Your task to perform on an android device: Open privacy settings Image 0: 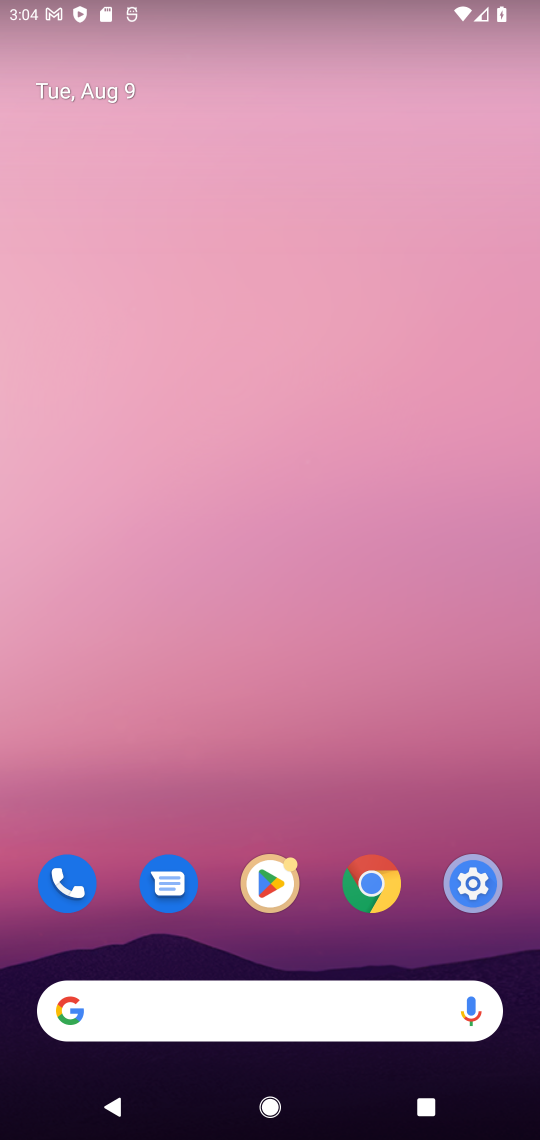
Step 0: drag from (361, 1027) to (333, 496)
Your task to perform on an android device: Open privacy settings Image 1: 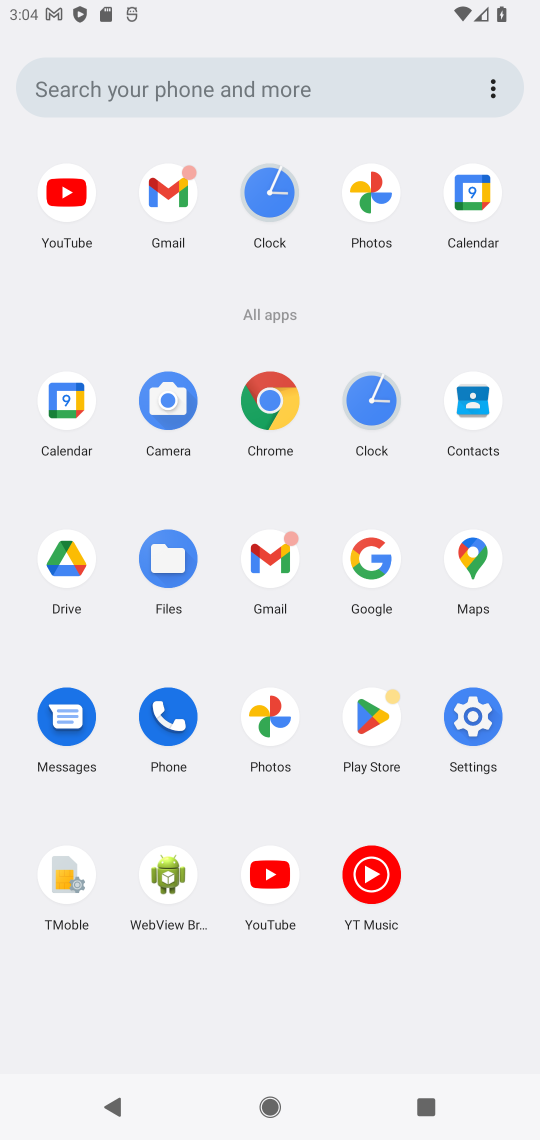
Step 1: click (457, 716)
Your task to perform on an android device: Open privacy settings Image 2: 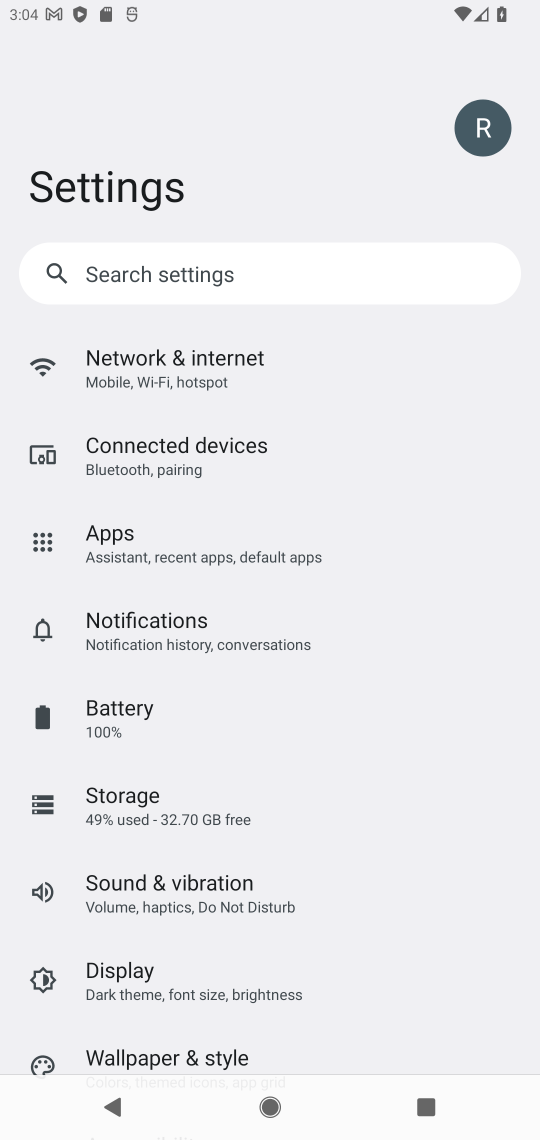
Step 2: click (184, 270)
Your task to perform on an android device: Open privacy settings Image 3: 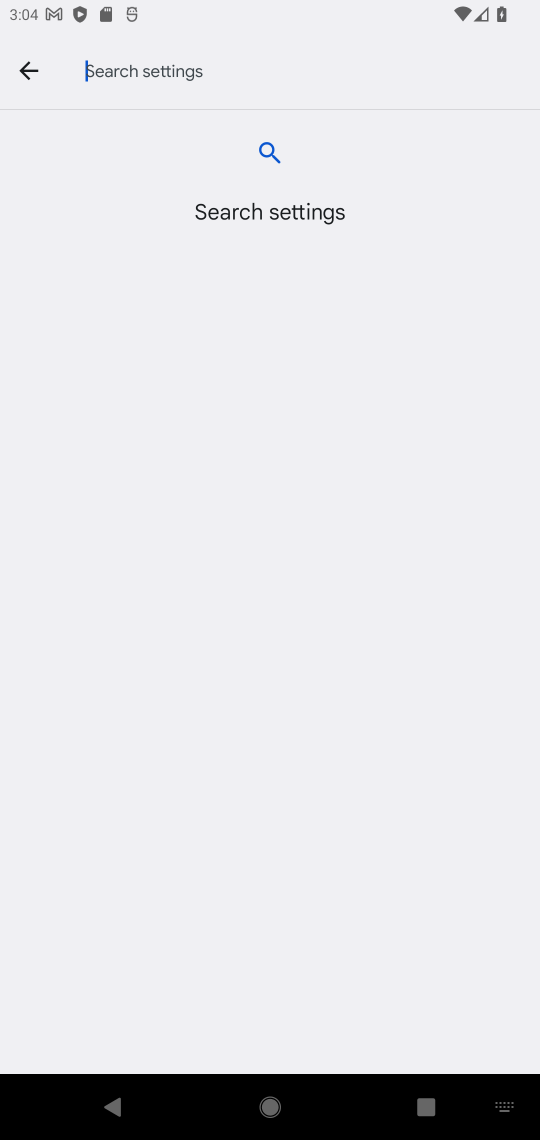
Step 3: click (496, 1112)
Your task to perform on an android device: Open privacy settings Image 4: 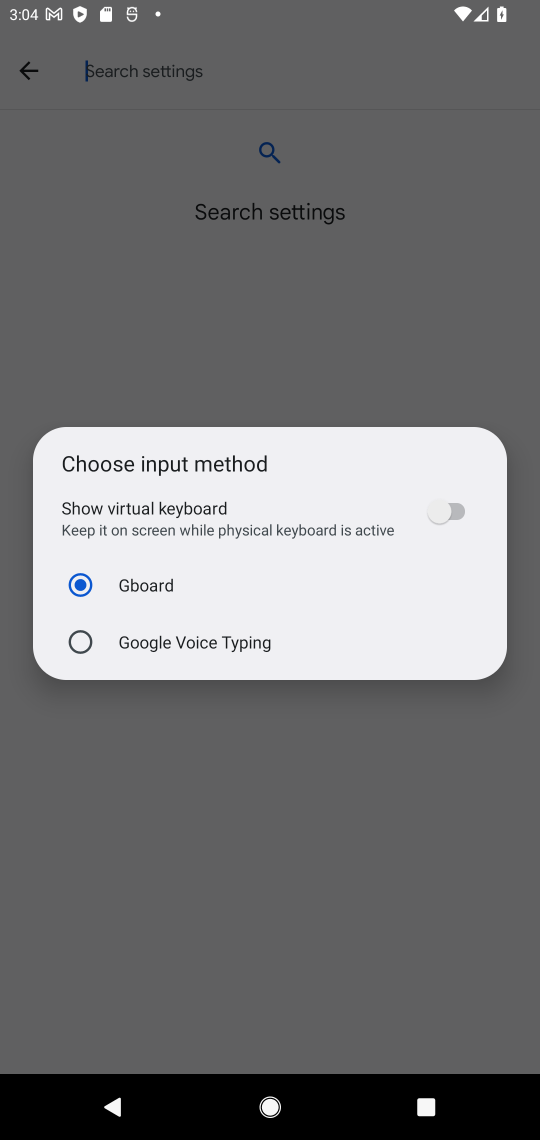
Step 4: click (440, 510)
Your task to perform on an android device: Open privacy settings Image 5: 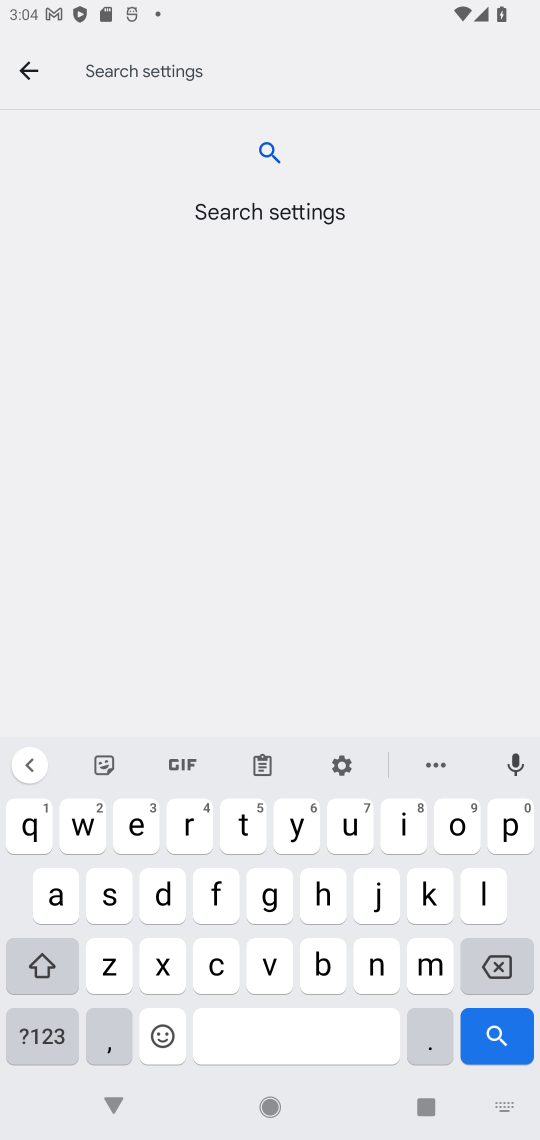
Step 5: click (509, 821)
Your task to perform on an android device: Open privacy settings Image 6: 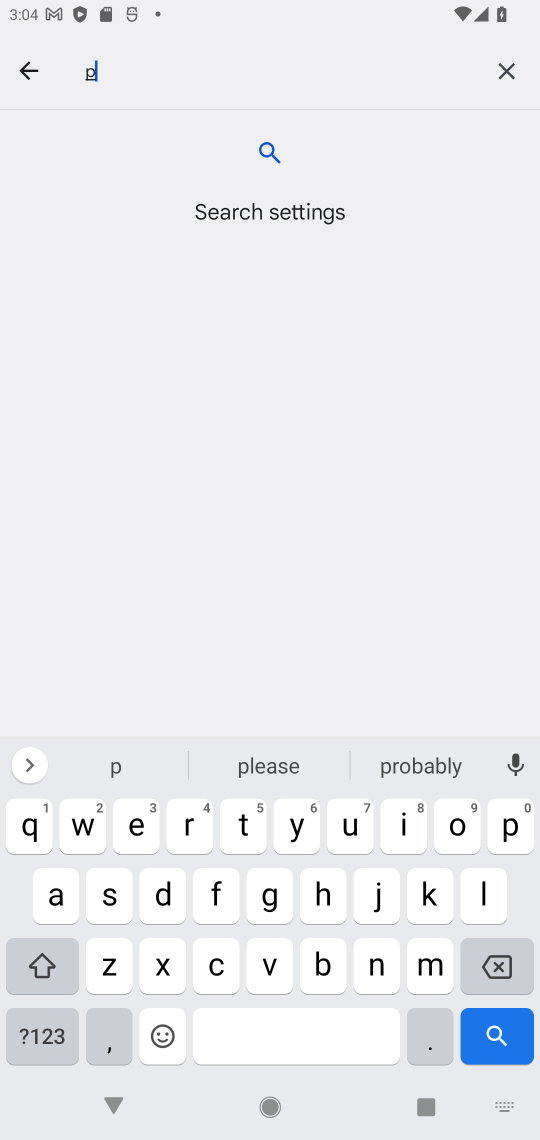
Step 6: click (181, 834)
Your task to perform on an android device: Open privacy settings Image 7: 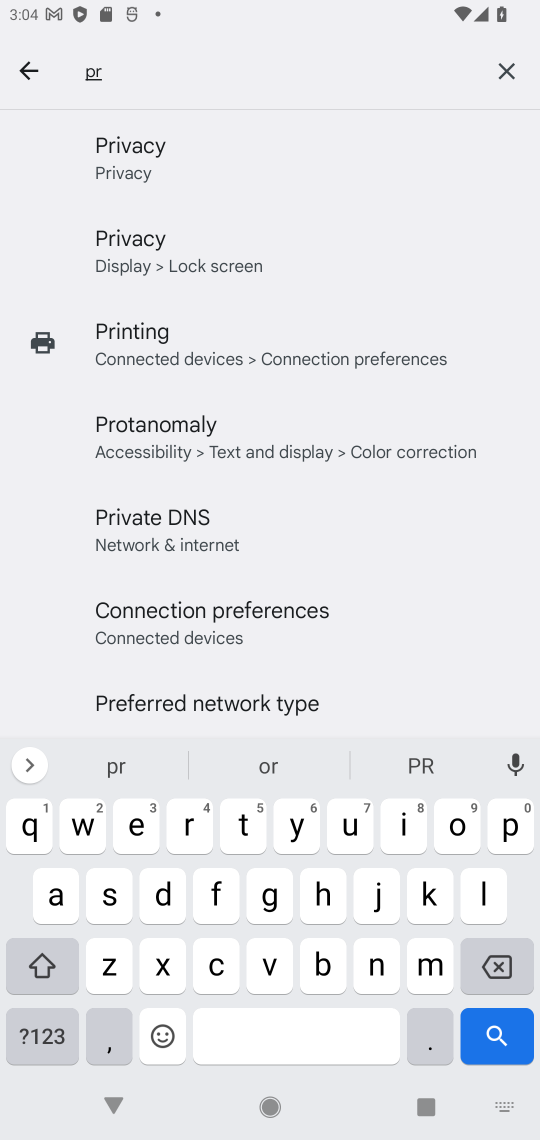
Step 7: click (151, 165)
Your task to perform on an android device: Open privacy settings Image 8: 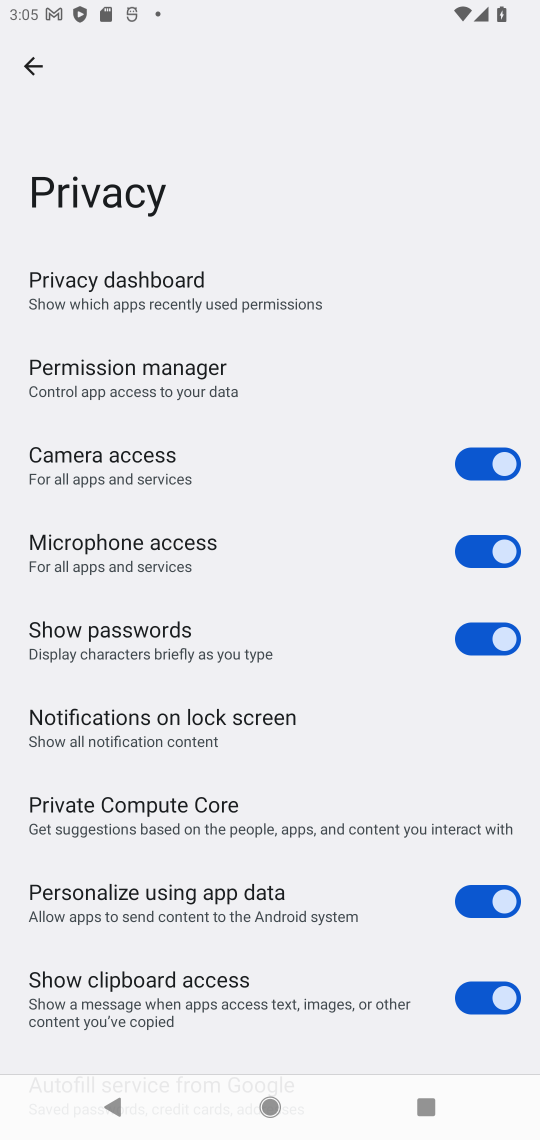
Step 8: click (203, 750)
Your task to perform on an android device: Open privacy settings Image 9: 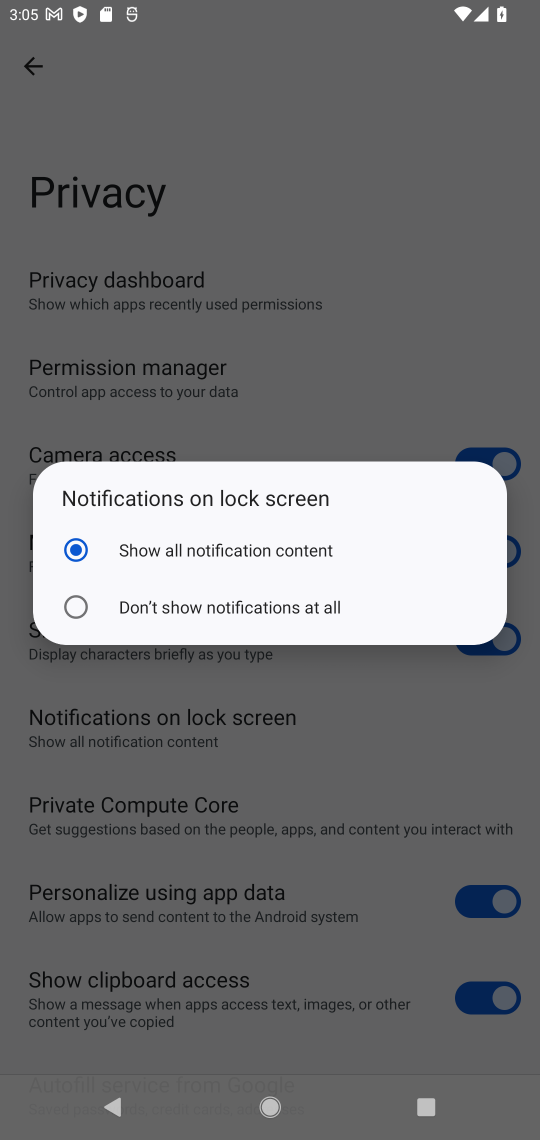
Step 9: click (242, 771)
Your task to perform on an android device: Open privacy settings Image 10: 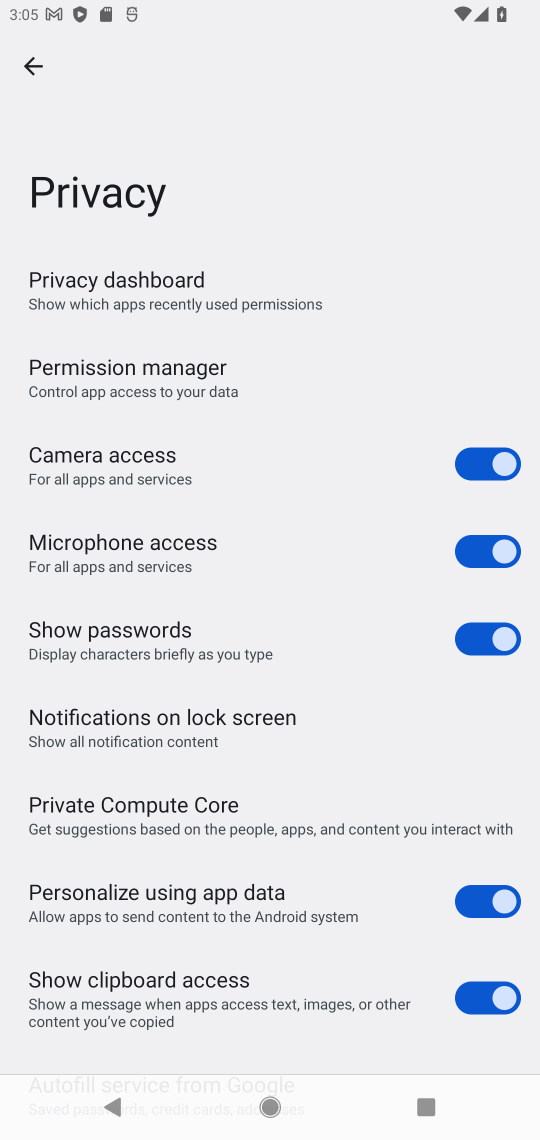
Step 10: task complete